Your task to perform on an android device: turn off translation in the chrome app Image 0: 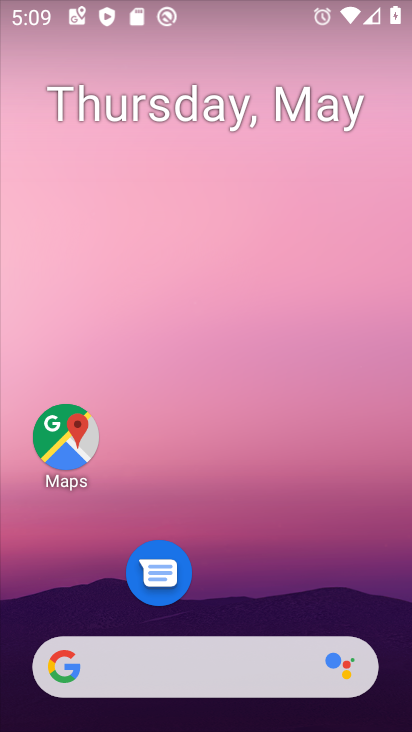
Step 0: drag from (237, 554) to (245, 133)
Your task to perform on an android device: turn off translation in the chrome app Image 1: 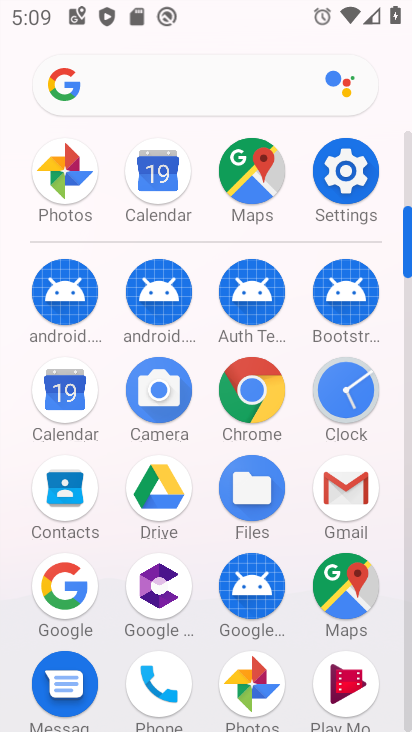
Step 1: click (249, 425)
Your task to perform on an android device: turn off translation in the chrome app Image 2: 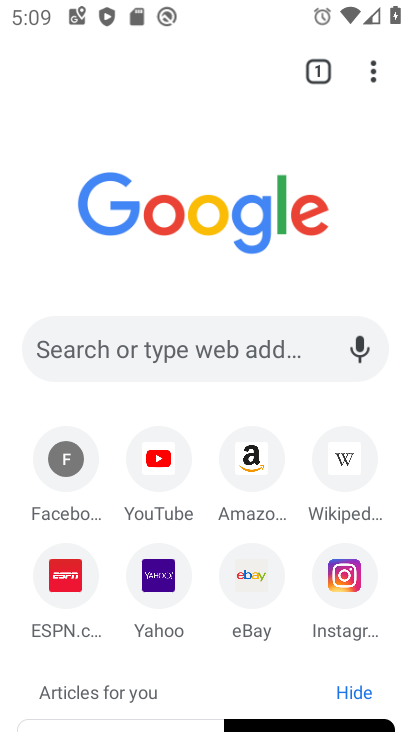
Step 2: click (377, 72)
Your task to perform on an android device: turn off translation in the chrome app Image 3: 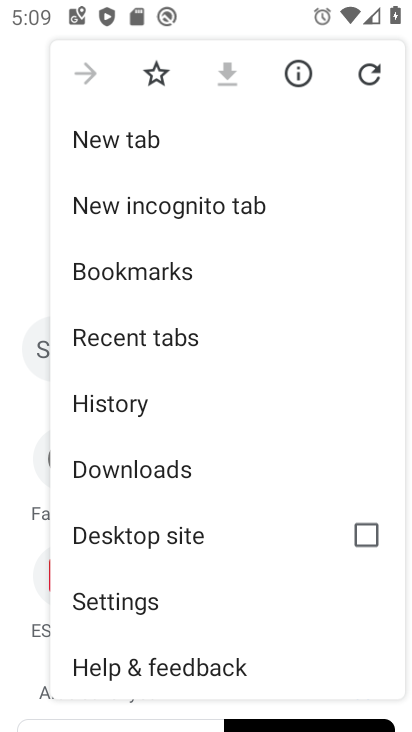
Step 3: click (136, 606)
Your task to perform on an android device: turn off translation in the chrome app Image 4: 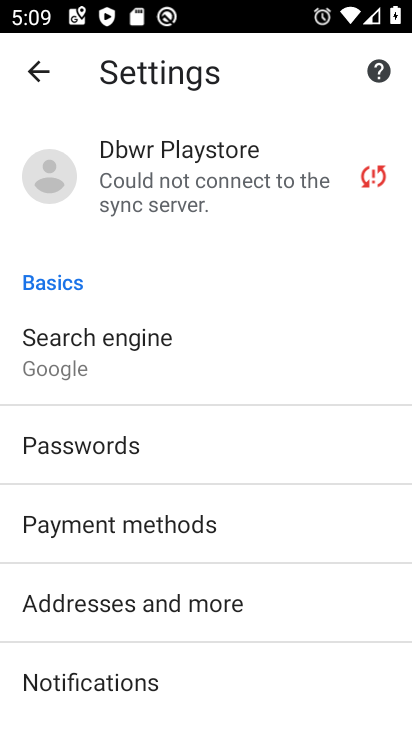
Step 4: click (155, 171)
Your task to perform on an android device: turn off translation in the chrome app Image 5: 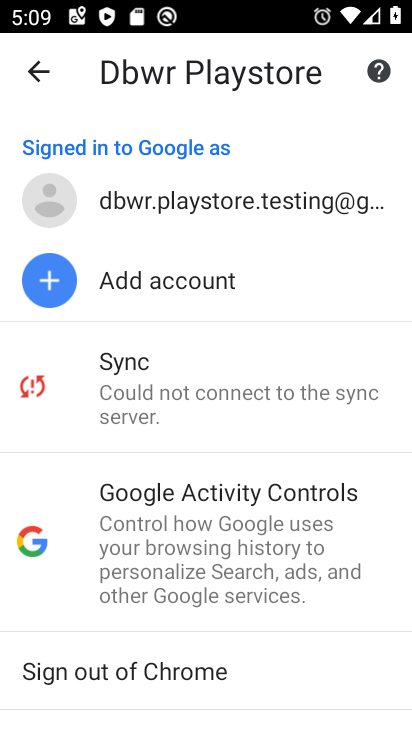
Step 5: click (34, 68)
Your task to perform on an android device: turn off translation in the chrome app Image 6: 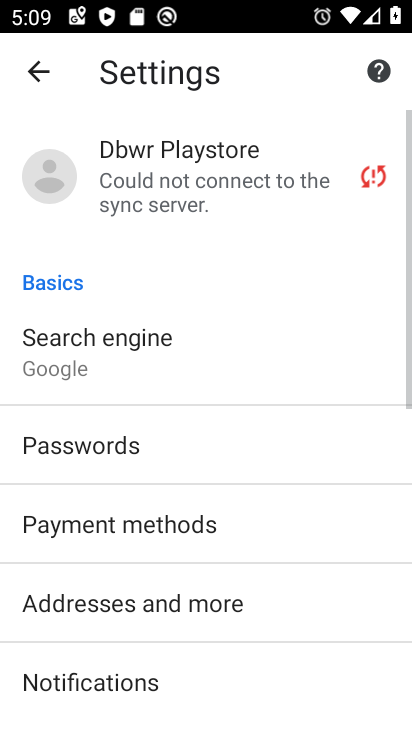
Step 6: drag from (179, 666) to (270, 290)
Your task to perform on an android device: turn off translation in the chrome app Image 7: 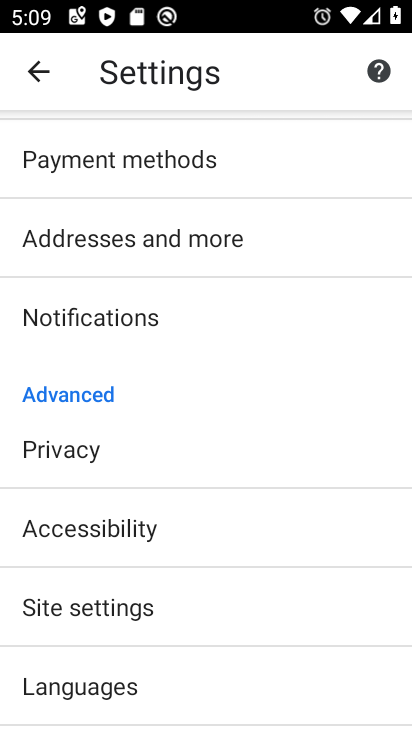
Step 7: click (123, 700)
Your task to perform on an android device: turn off translation in the chrome app Image 8: 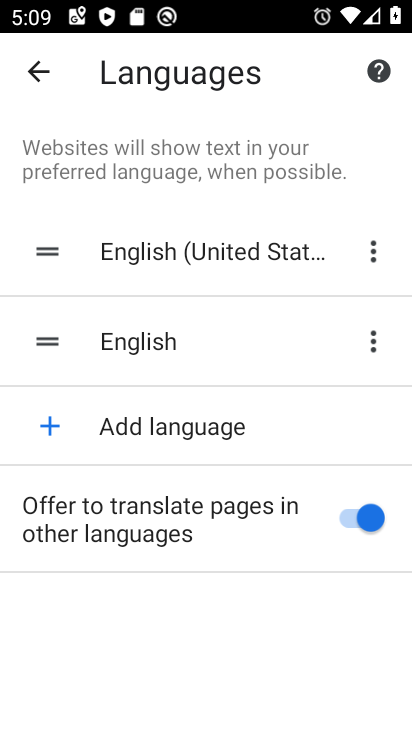
Step 8: click (349, 520)
Your task to perform on an android device: turn off translation in the chrome app Image 9: 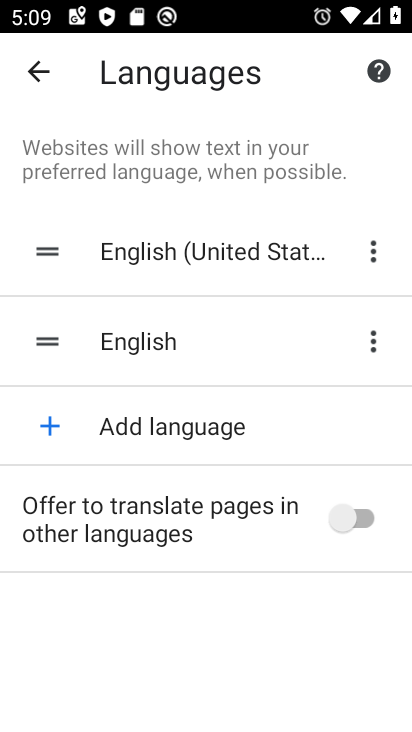
Step 9: task complete